Your task to perform on an android device: turn on the 24-hour format for clock Image 0: 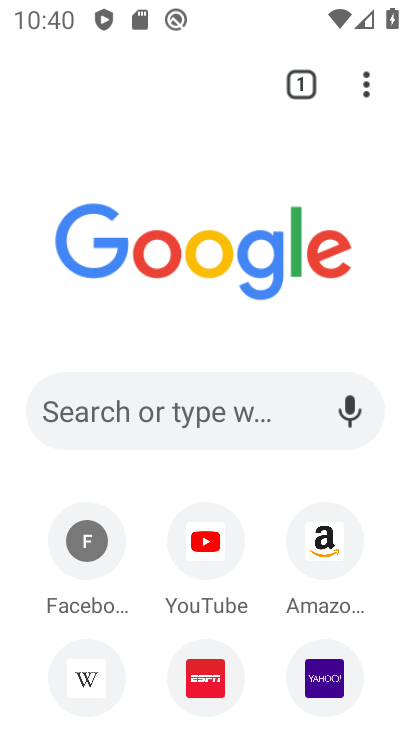
Step 0: press home button
Your task to perform on an android device: turn on the 24-hour format for clock Image 1: 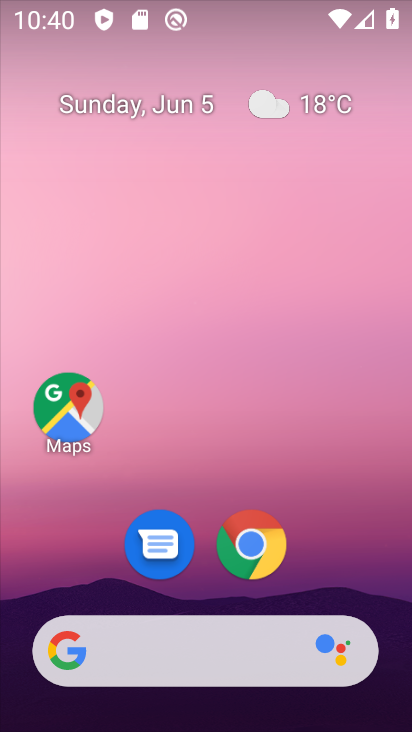
Step 1: drag from (206, 605) to (160, 274)
Your task to perform on an android device: turn on the 24-hour format for clock Image 2: 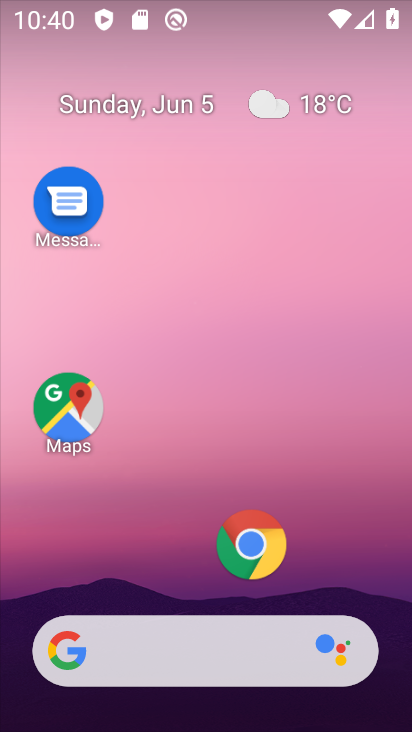
Step 2: drag from (309, 613) to (304, 132)
Your task to perform on an android device: turn on the 24-hour format for clock Image 3: 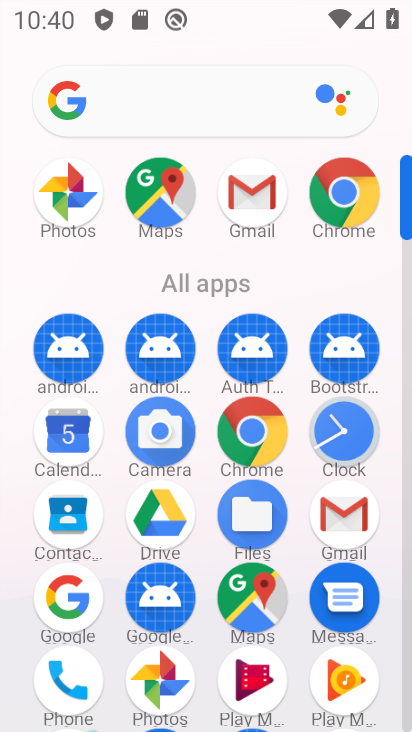
Step 3: click (355, 437)
Your task to perform on an android device: turn on the 24-hour format for clock Image 4: 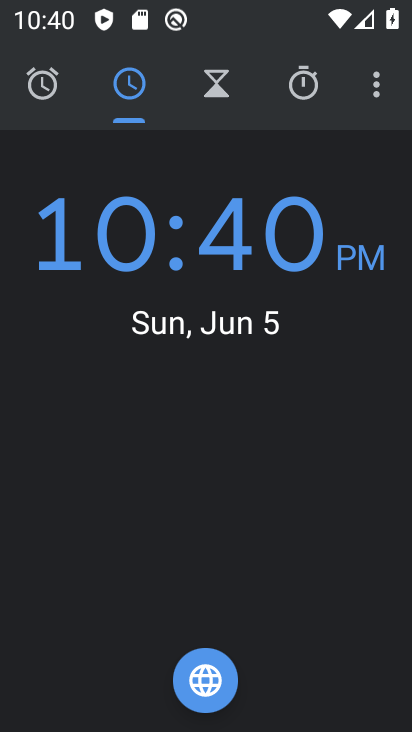
Step 4: click (375, 93)
Your task to perform on an android device: turn on the 24-hour format for clock Image 5: 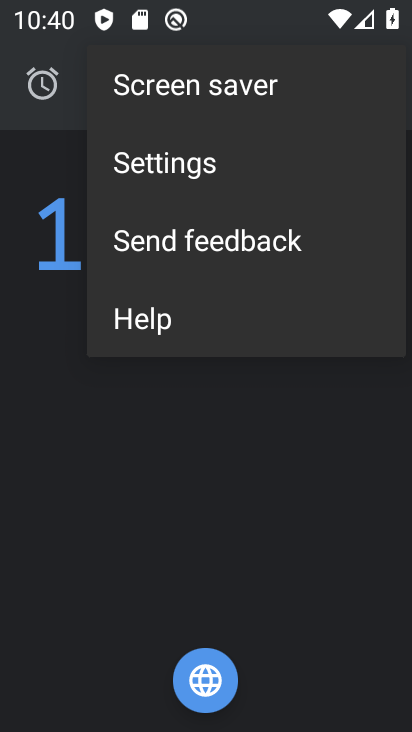
Step 5: click (146, 174)
Your task to perform on an android device: turn on the 24-hour format for clock Image 6: 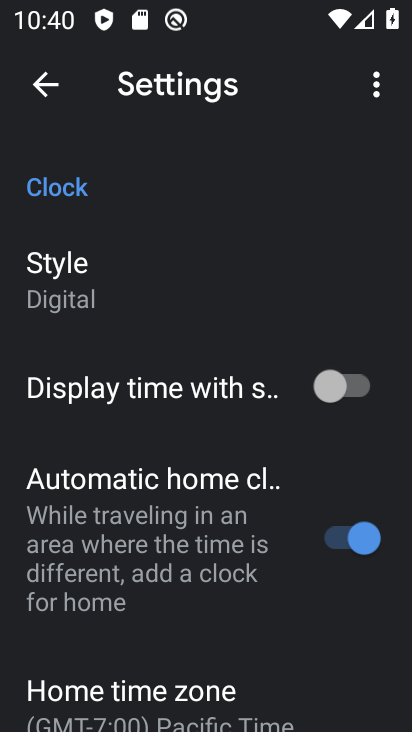
Step 6: drag from (148, 647) to (139, 287)
Your task to perform on an android device: turn on the 24-hour format for clock Image 7: 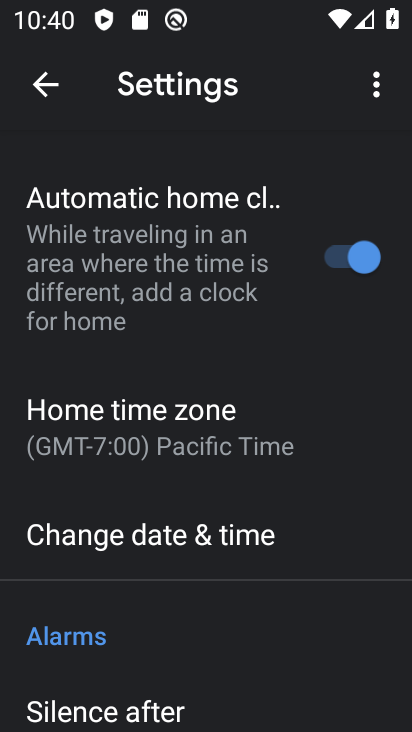
Step 7: click (148, 519)
Your task to perform on an android device: turn on the 24-hour format for clock Image 8: 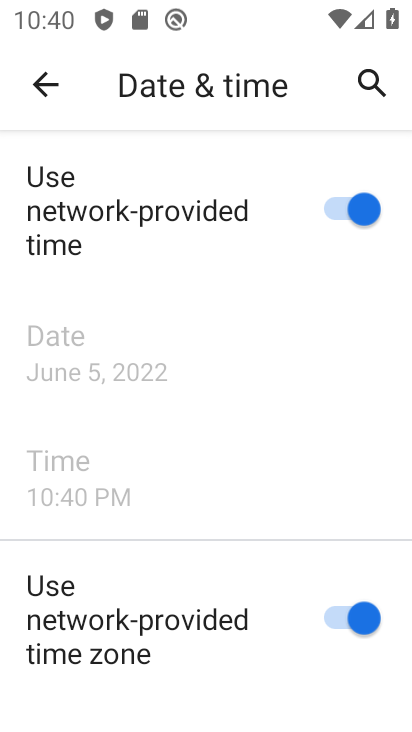
Step 8: drag from (131, 690) to (196, 315)
Your task to perform on an android device: turn on the 24-hour format for clock Image 9: 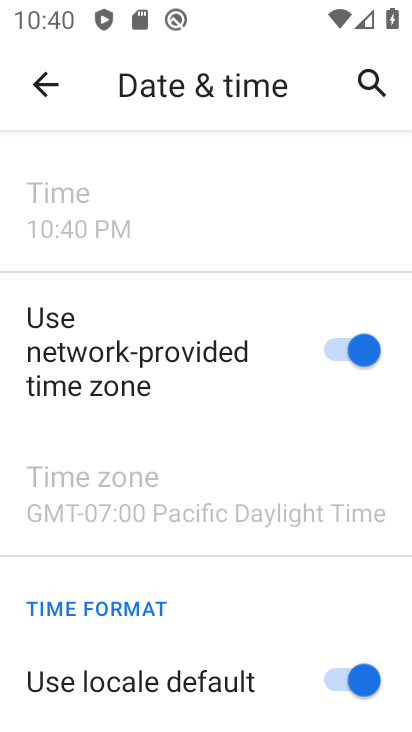
Step 9: drag from (242, 672) to (242, 245)
Your task to perform on an android device: turn on the 24-hour format for clock Image 10: 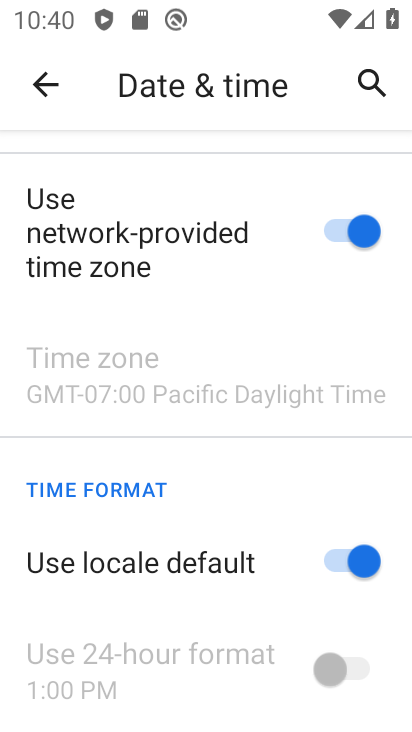
Step 10: click (348, 560)
Your task to perform on an android device: turn on the 24-hour format for clock Image 11: 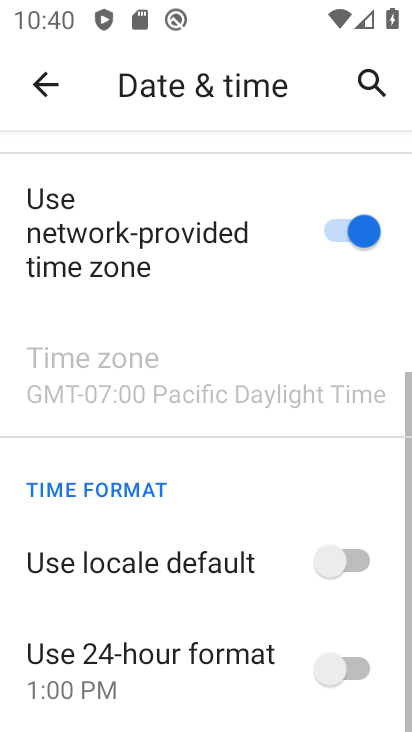
Step 11: click (355, 668)
Your task to perform on an android device: turn on the 24-hour format for clock Image 12: 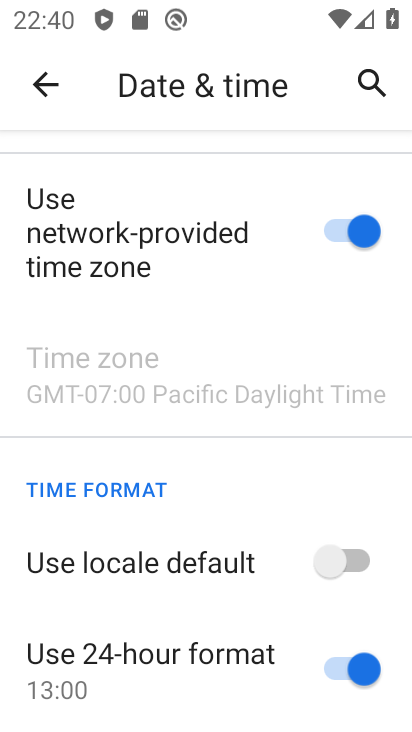
Step 12: task complete